Your task to perform on an android device: Open Youtube and go to the subscriptions tab Image 0: 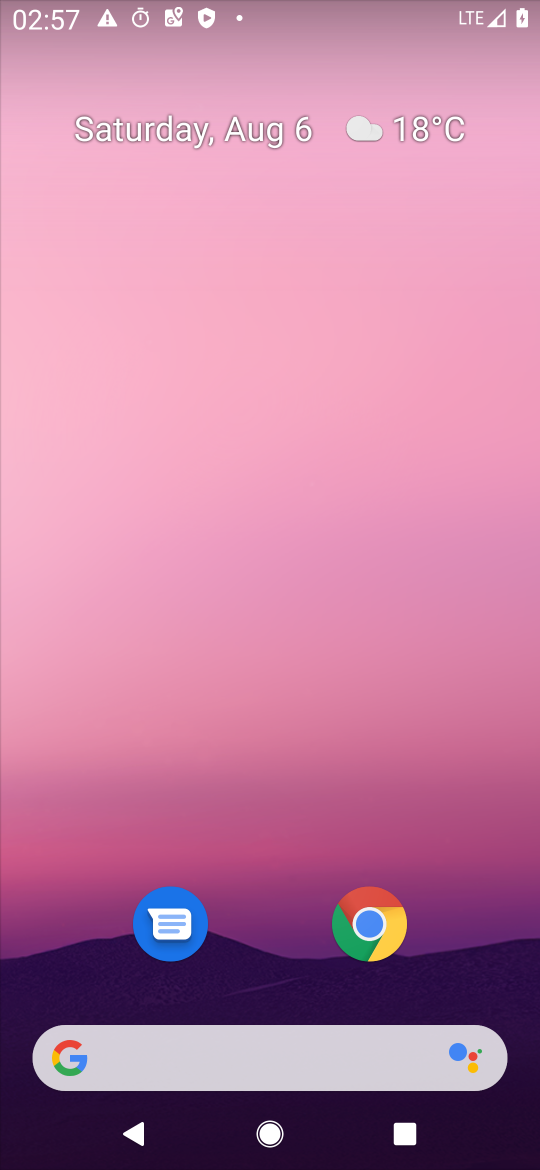
Step 0: drag from (381, 1068) to (381, 60)
Your task to perform on an android device: Open Youtube and go to the subscriptions tab Image 1: 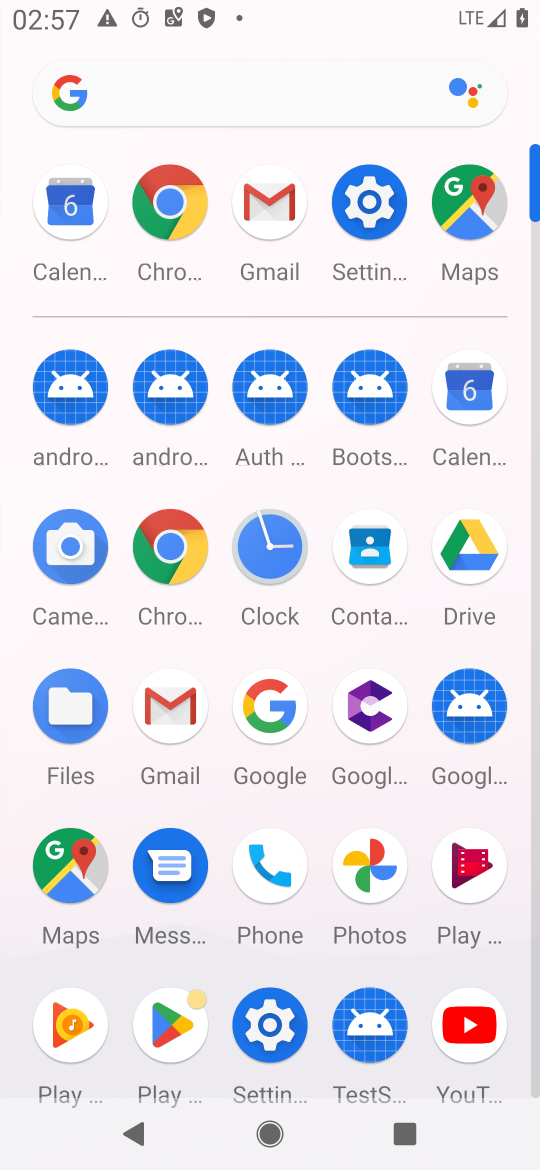
Step 1: click (456, 1007)
Your task to perform on an android device: Open Youtube and go to the subscriptions tab Image 2: 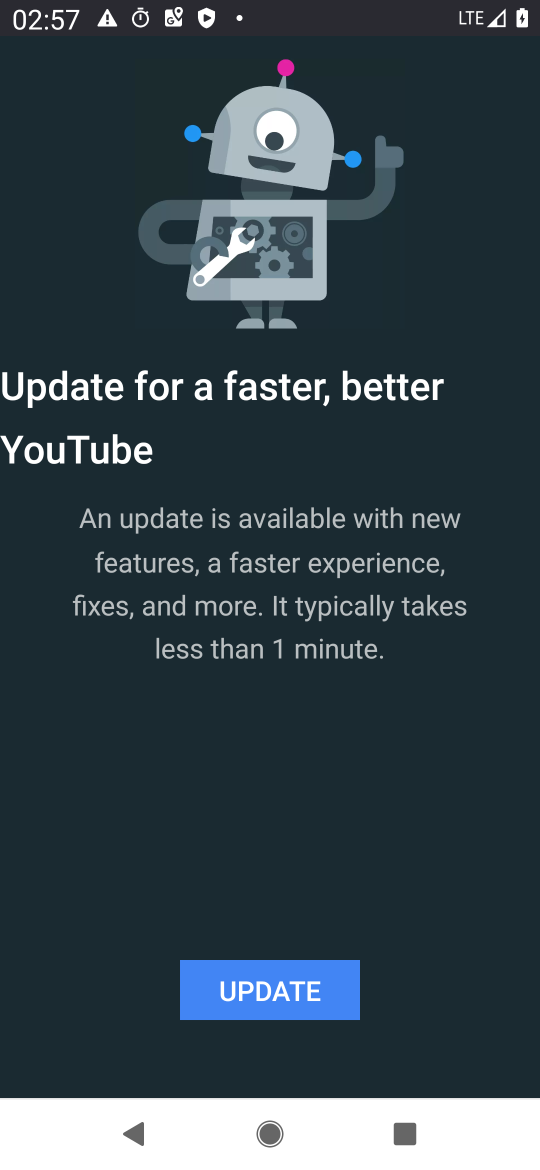
Step 2: click (330, 990)
Your task to perform on an android device: Open Youtube and go to the subscriptions tab Image 3: 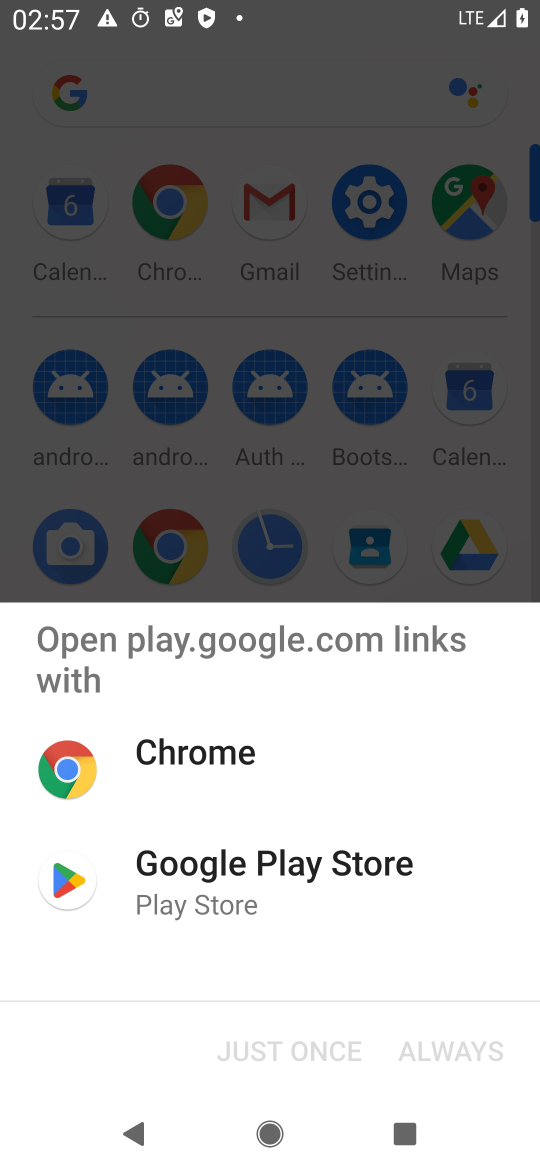
Step 3: click (157, 884)
Your task to perform on an android device: Open Youtube and go to the subscriptions tab Image 4: 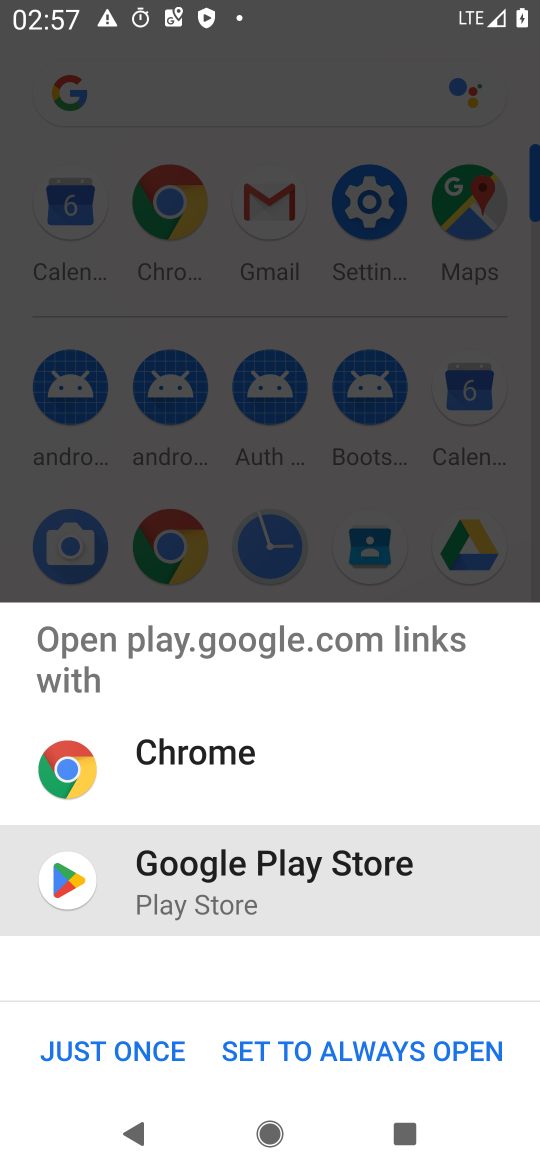
Step 4: click (134, 1046)
Your task to perform on an android device: Open Youtube and go to the subscriptions tab Image 5: 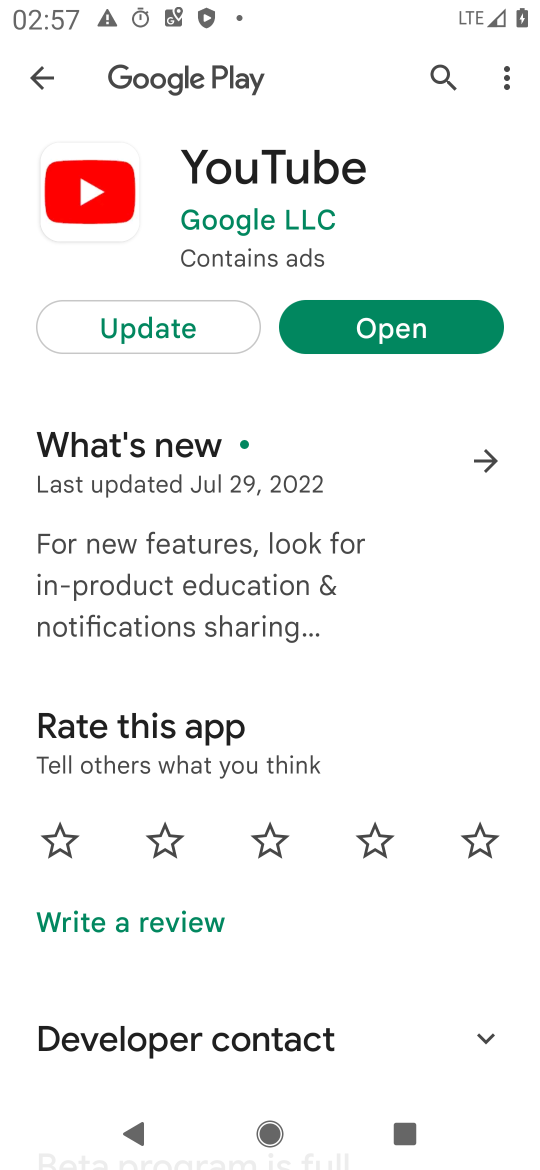
Step 5: click (158, 326)
Your task to perform on an android device: Open Youtube and go to the subscriptions tab Image 6: 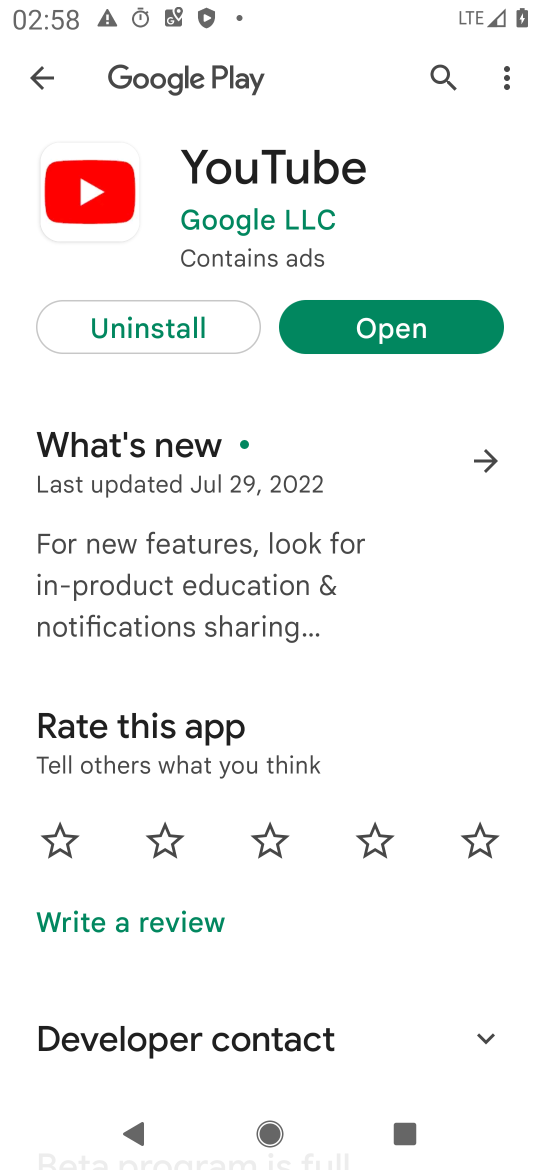
Step 6: click (380, 330)
Your task to perform on an android device: Open Youtube and go to the subscriptions tab Image 7: 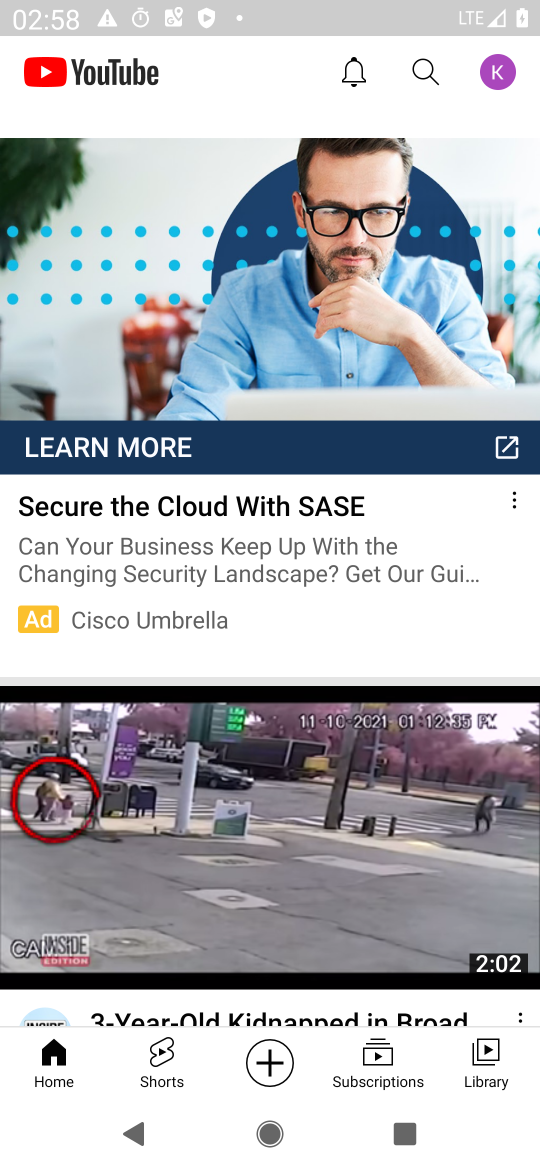
Step 7: click (364, 1059)
Your task to perform on an android device: Open Youtube and go to the subscriptions tab Image 8: 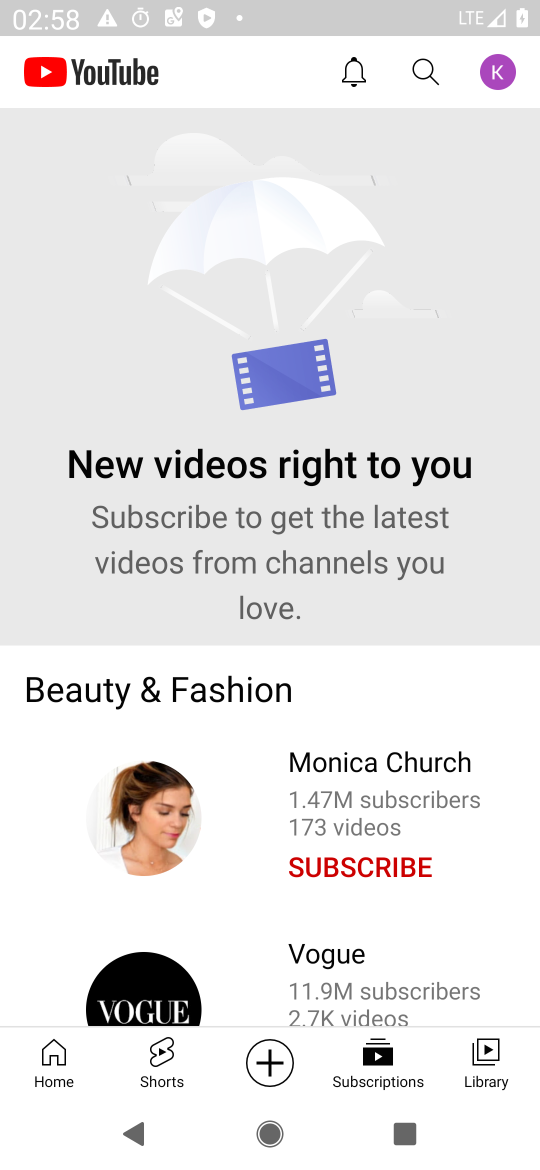
Step 8: task complete